Your task to perform on an android device: When is my next appointment? Image 0: 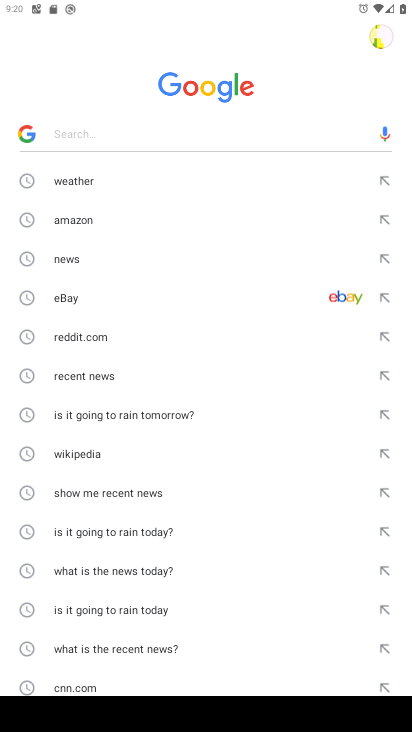
Step 0: press home button
Your task to perform on an android device: When is my next appointment? Image 1: 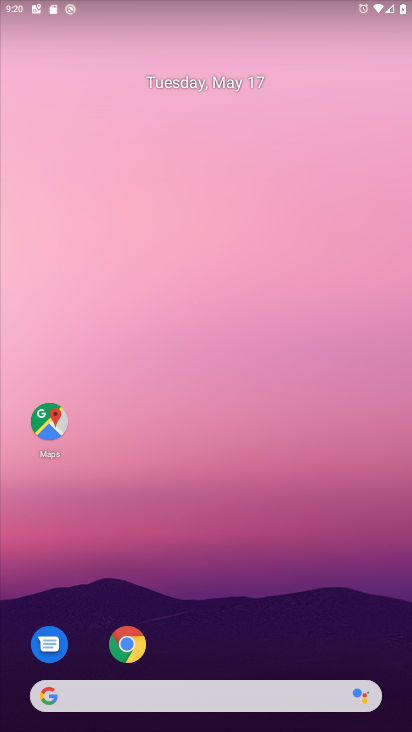
Step 1: drag from (211, 662) to (247, 39)
Your task to perform on an android device: When is my next appointment? Image 2: 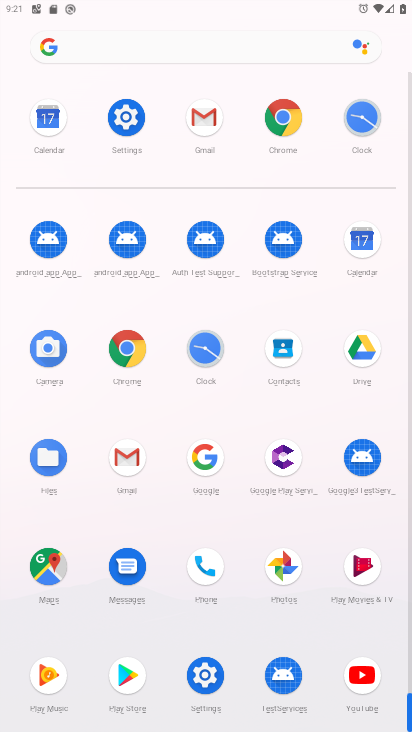
Step 2: click (362, 238)
Your task to perform on an android device: When is my next appointment? Image 3: 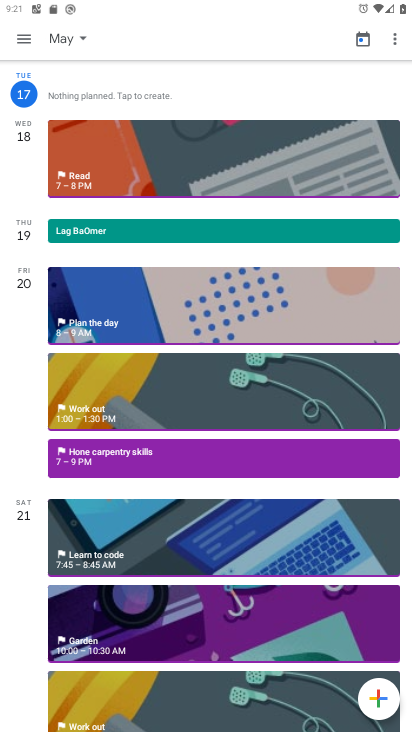
Step 3: task complete